Your task to perform on an android device: turn off data saver in the chrome app Image 0: 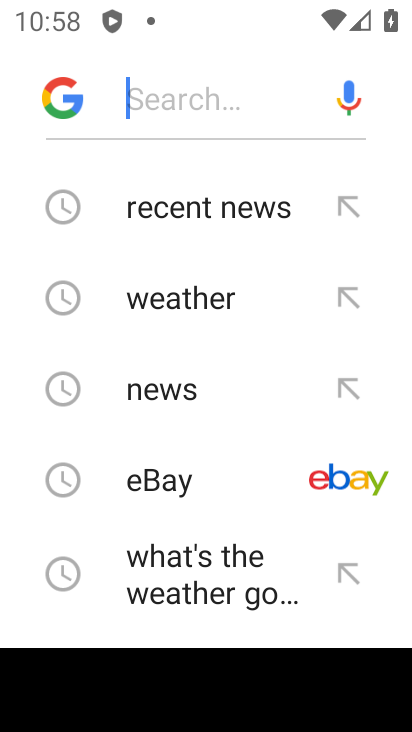
Step 0: press home button
Your task to perform on an android device: turn off data saver in the chrome app Image 1: 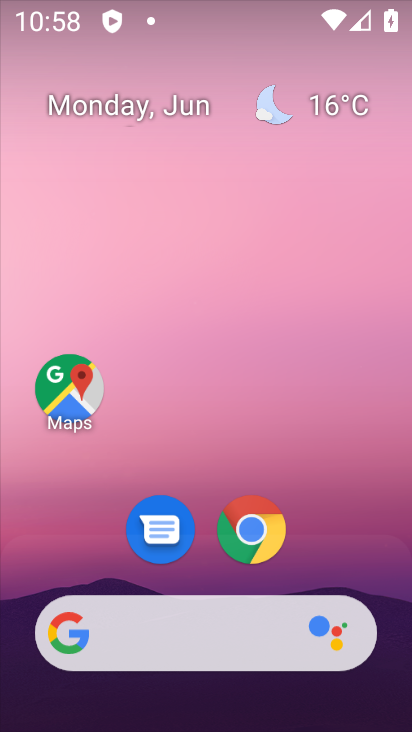
Step 1: click (269, 526)
Your task to perform on an android device: turn off data saver in the chrome app Image 2: 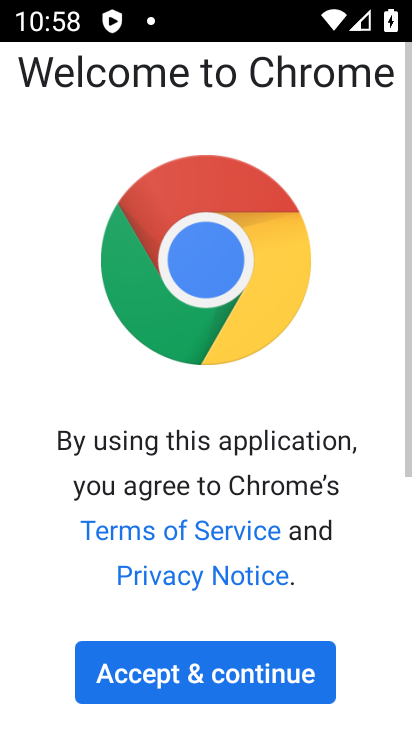
Step 2: click (237, 694)
Your task to perform on an android device: turn off data saver in the chrome app Image 3: 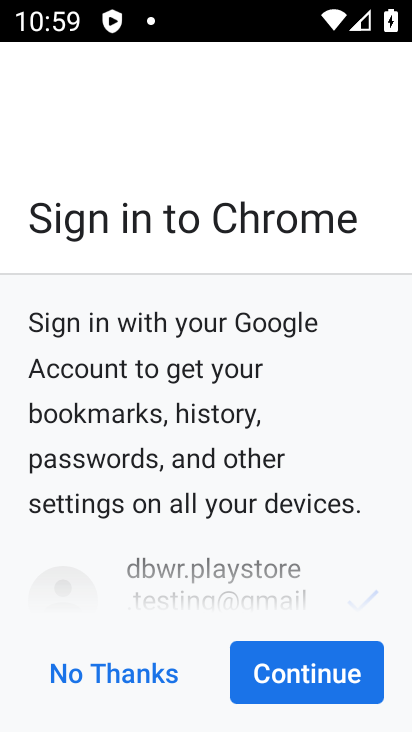
Step 3: click (335, 701)
Your task to perform on an android device: turn off data saver in the chrome app Image 4: 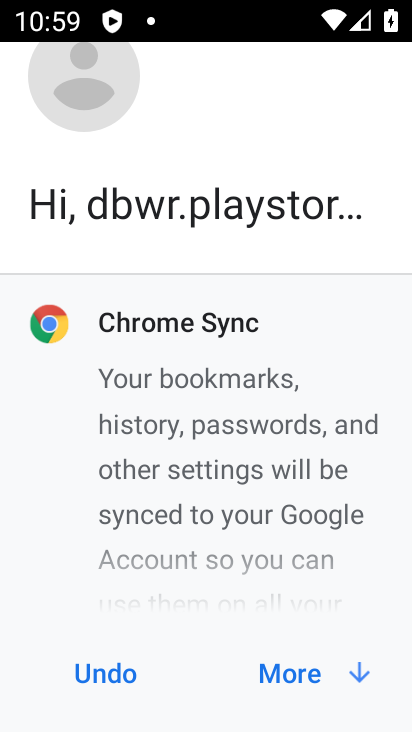
Step 4: click (334, 701)
Your task to perform on an android device: turn off data saver in the chrome app Image 5: 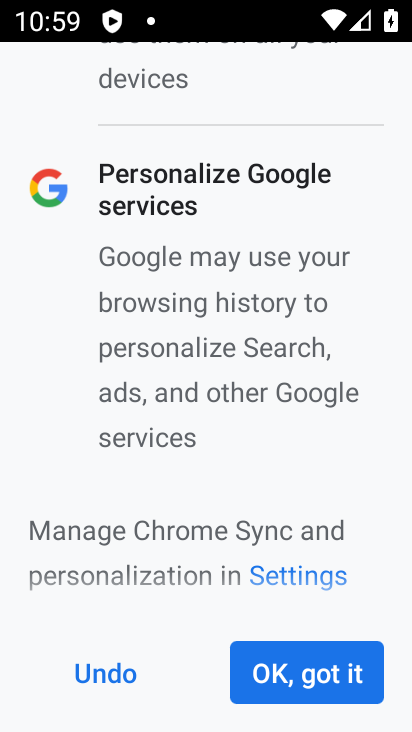
Step 5: click (330, 702)
Your task to perform on an android device: turn off data saver in the chrome app Image 6: 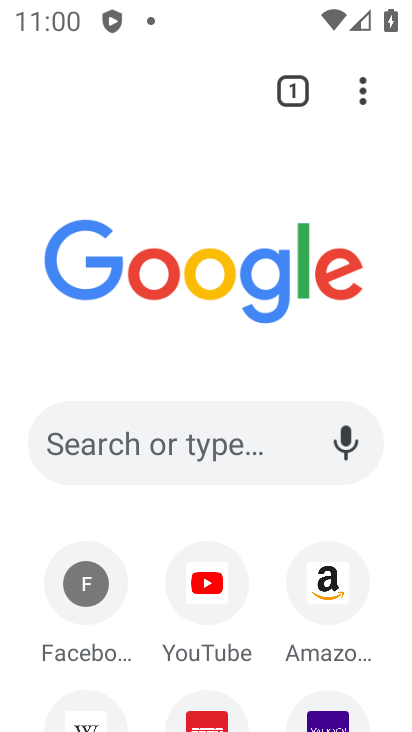
Step 6: task complete